Your task to perform on an android device: Do I have any events today? Image 0: 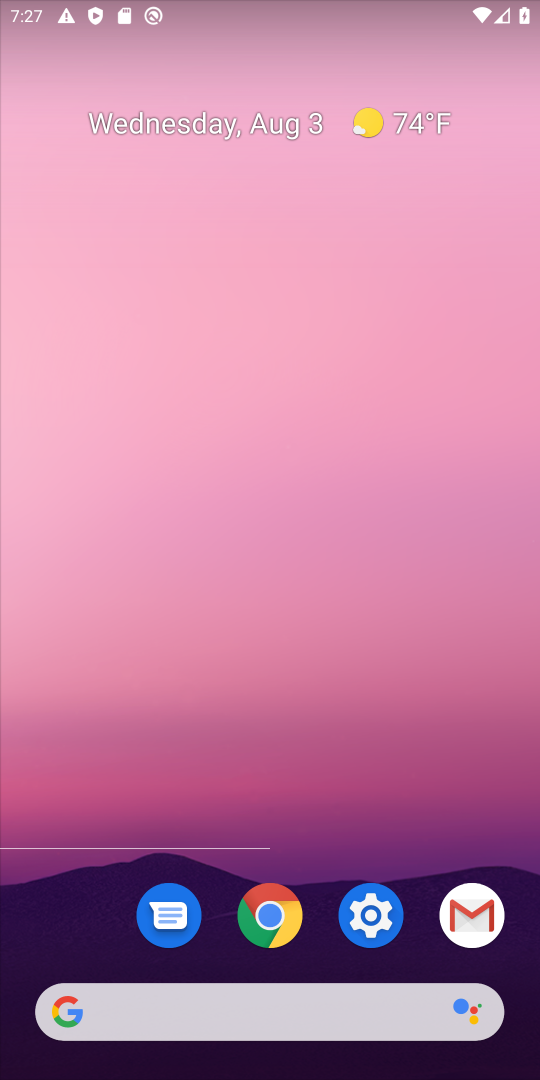
Step 0: drag from (403, 1041) to (390, 454)
Your task to perform on an android device: Do I have any events today? Image 1: 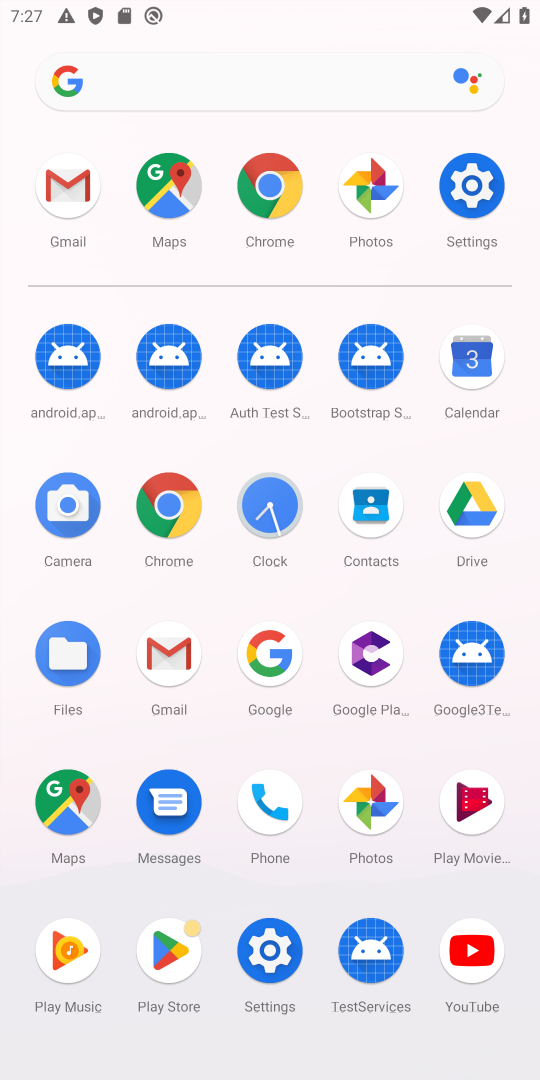
Step 1: click (464, 374)
Your task to perform on an android device: Do I have any events today? Image 2: 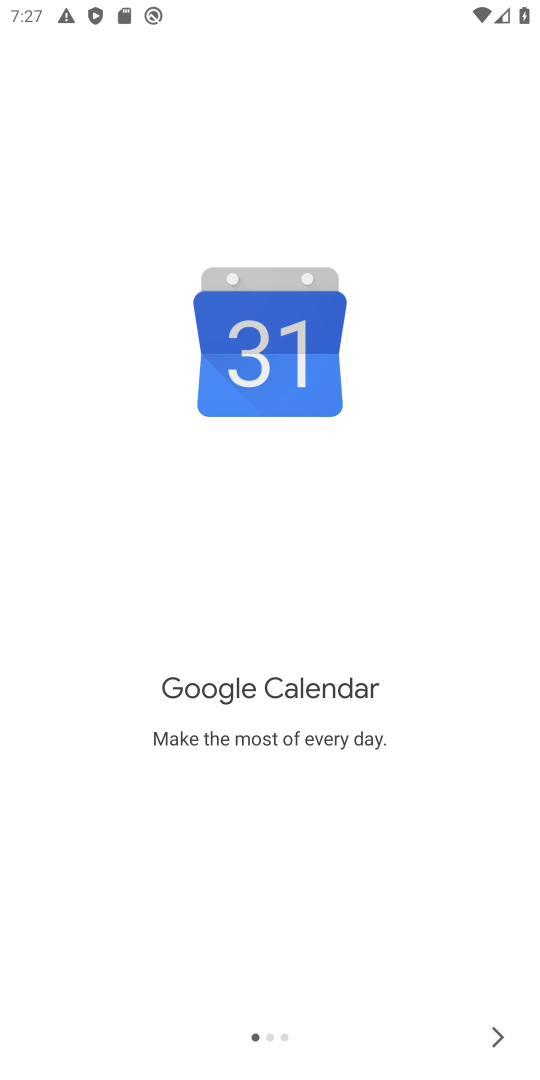
Step 2: click (484, 1047)
Your task to perform on an android device: Do I have any events today? Image 3: 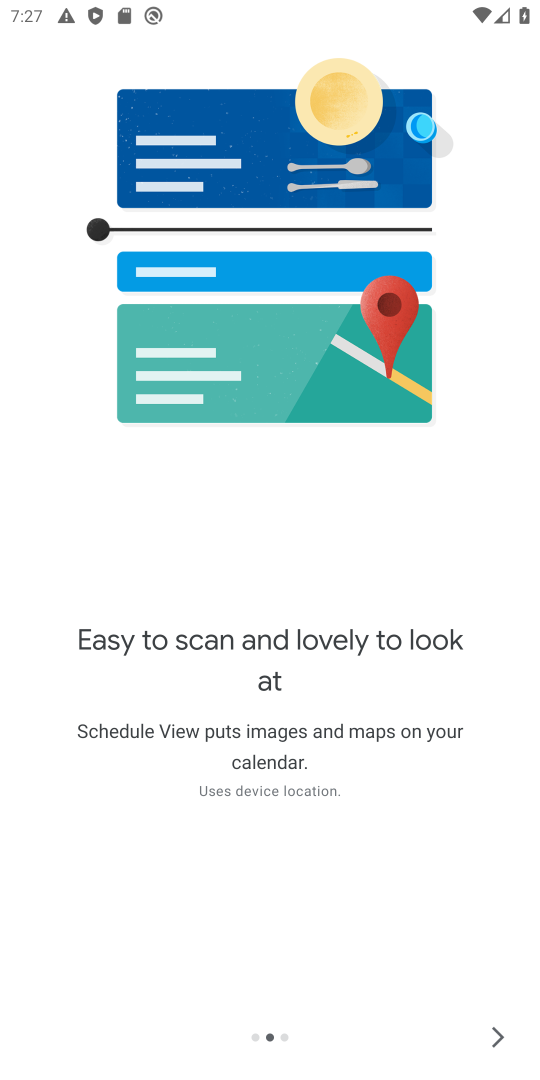
Step 3: click (487, 1026)
Your task to perform on an android device: Do I have any events today? Image 4: 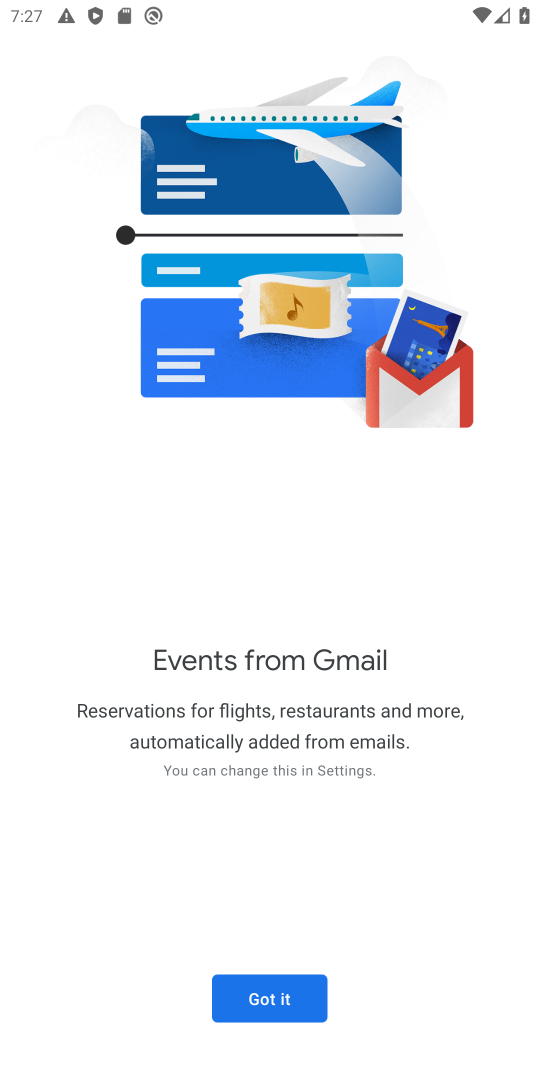
Step 4: click (294, 1000)
Your task to perform on an android device: Do I have any events today? Image 5: 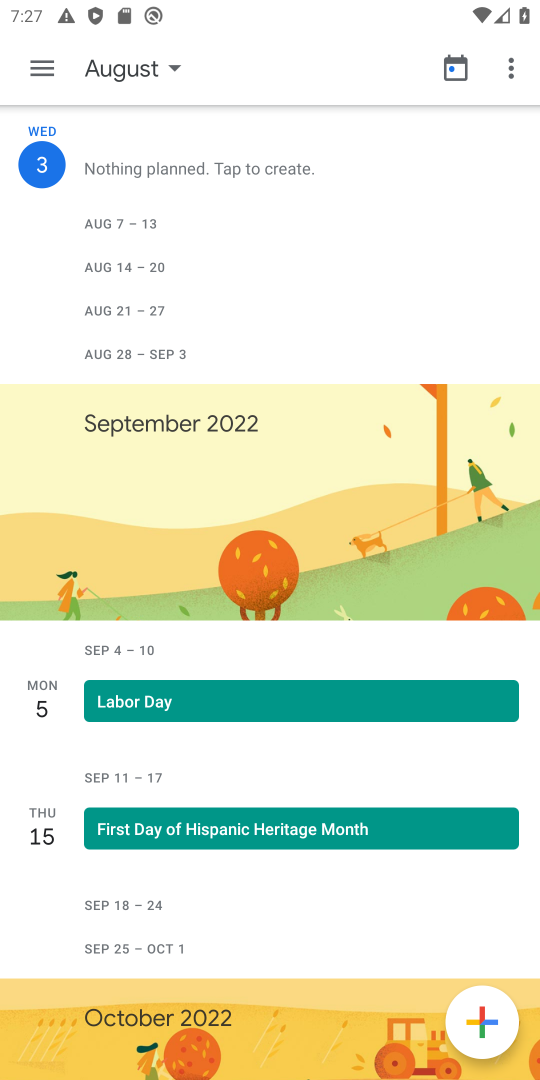
Step 5: task complete